Your task to perform on an android device: Is it going to rain tomorrow? Image 0: 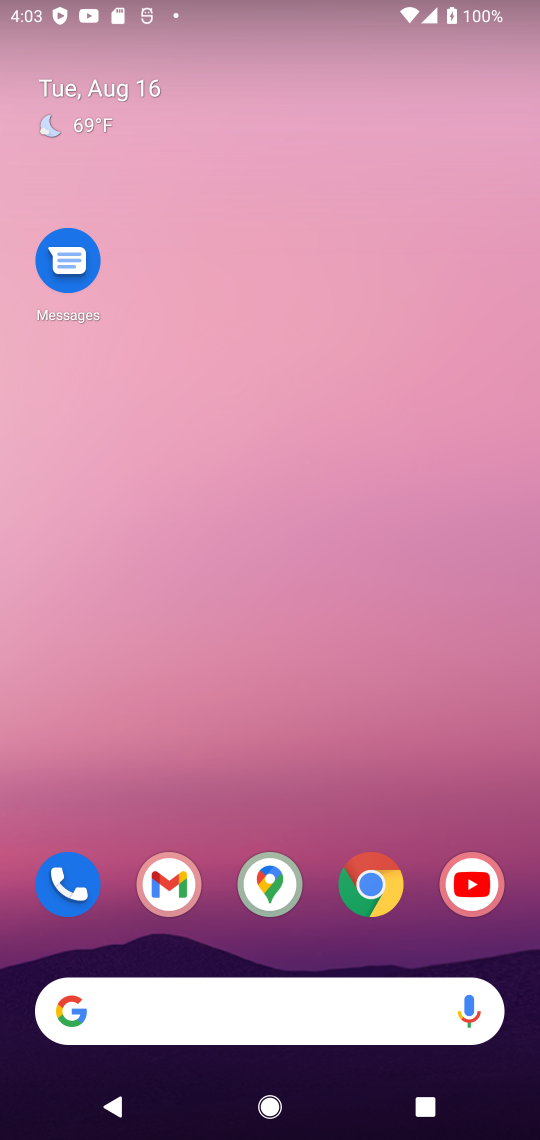
Step 0: click (162, 1000)
Your task to perform on an android device: Is it going to rain tomorrow? Image 1: 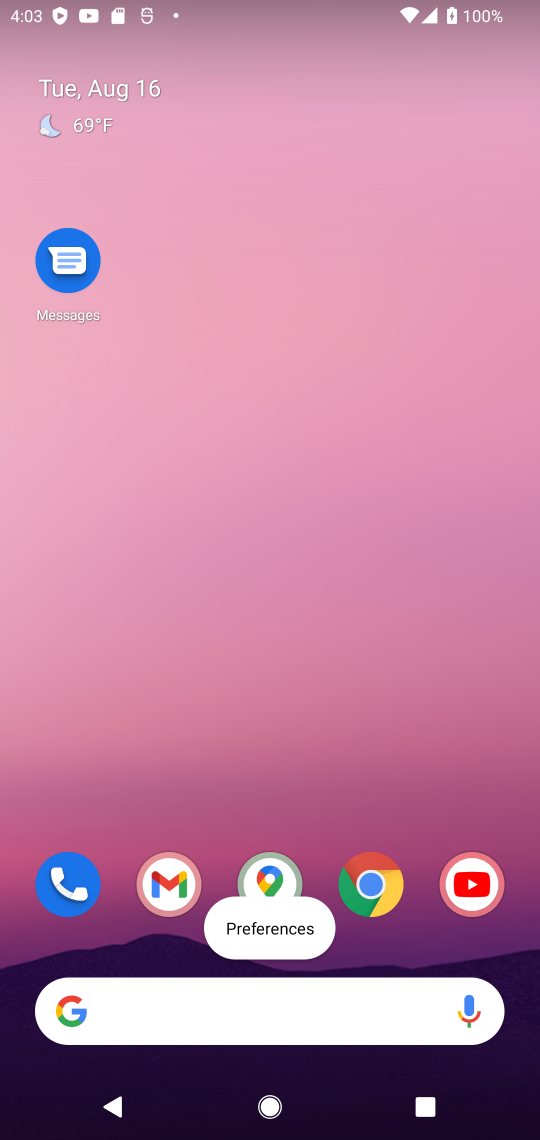
Step 1: click (127, 1028)
Your task to perform on an android device: Is it going to rain tomorrow? Image 2: 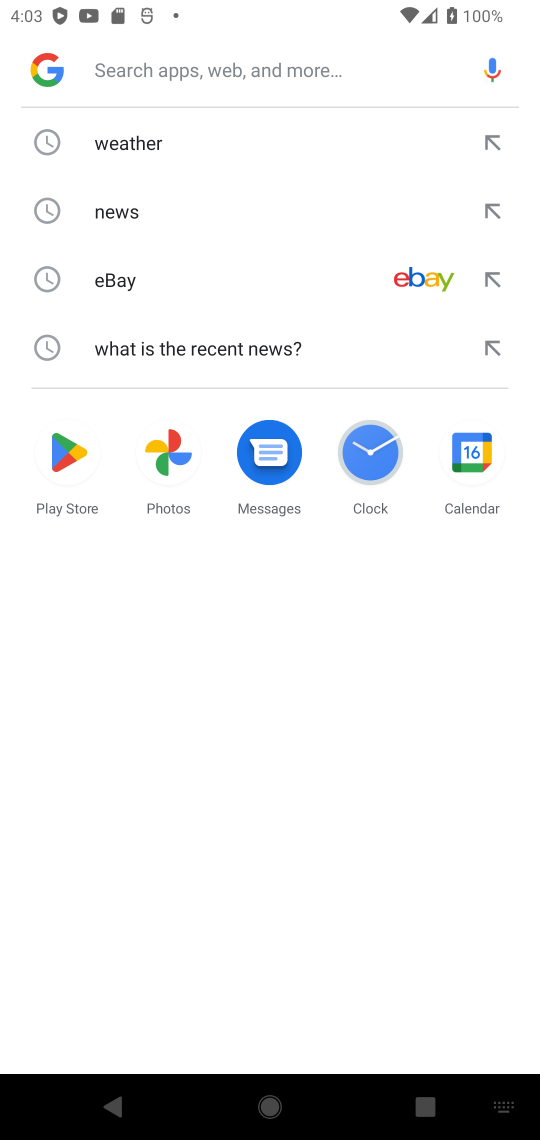
Step 2: type "Is it going to rain tomorrow?"
Your task to perform on an android device: Is it going to rain tomorrow? Image 3: 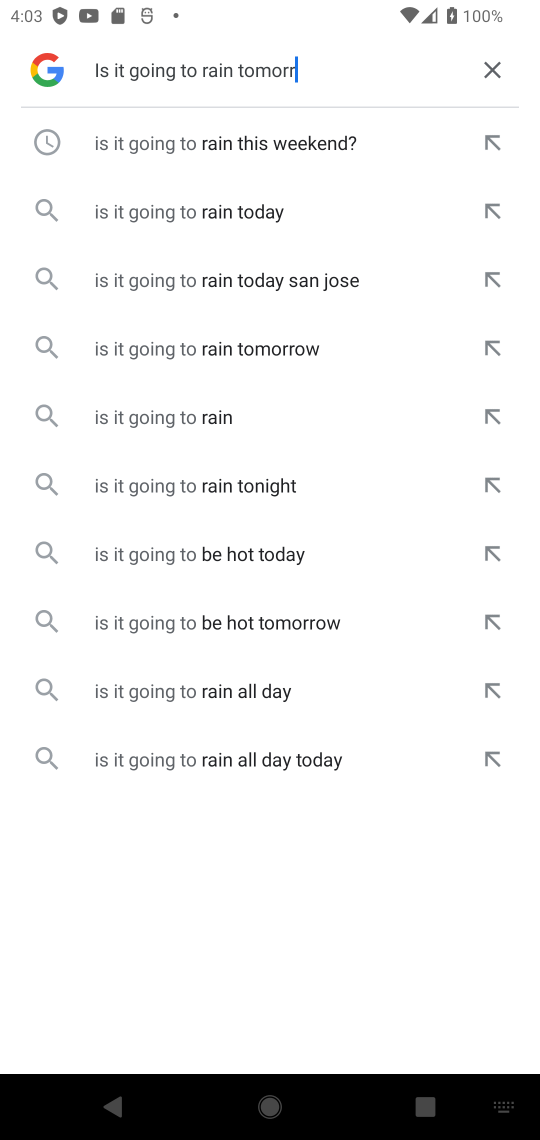
Step 3: type ""
Your task to perform on an android device: Is it going to rain tomorrow? Image 4: 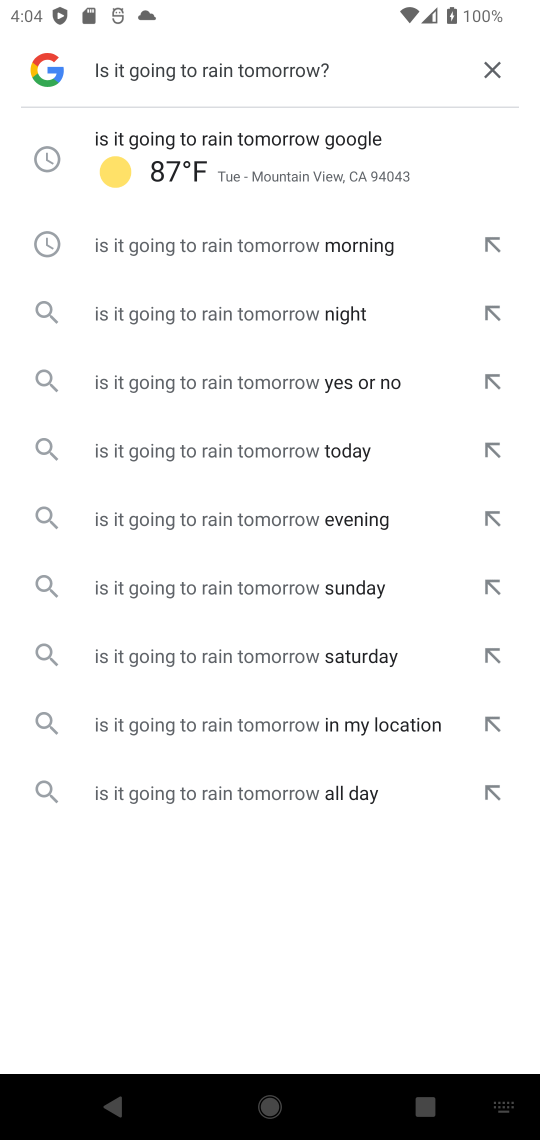
Step 4: task complete